Your task to perform on an android device: turn on location history Image 0: 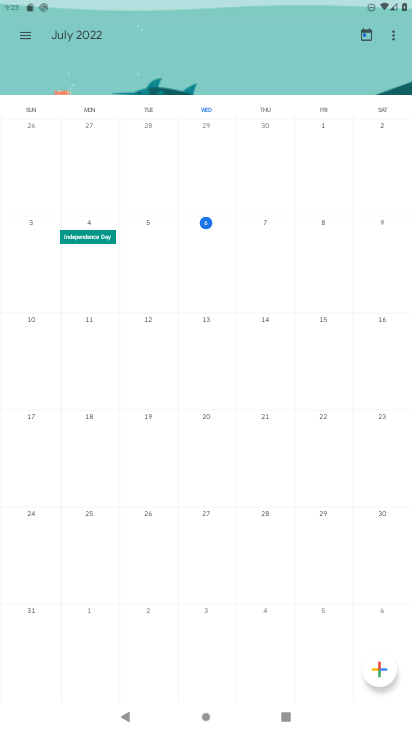
Step 0: press home button
Your task to perform on an android device: turn on location history Image 1: 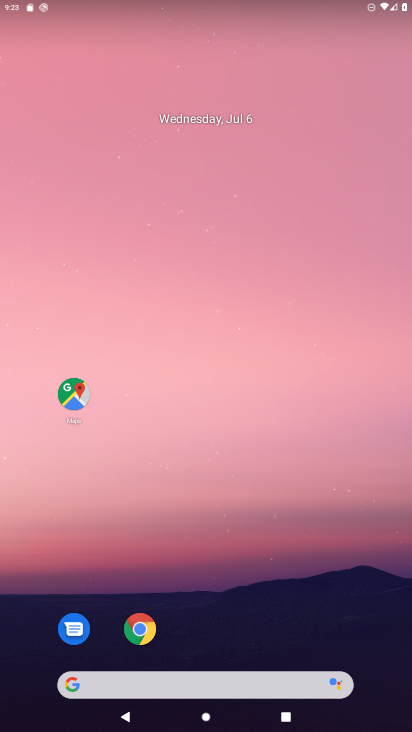
Step 1: drag from (178, 682) to (222, 42)
Your task to perform on an android device: turn on location history Image 2: 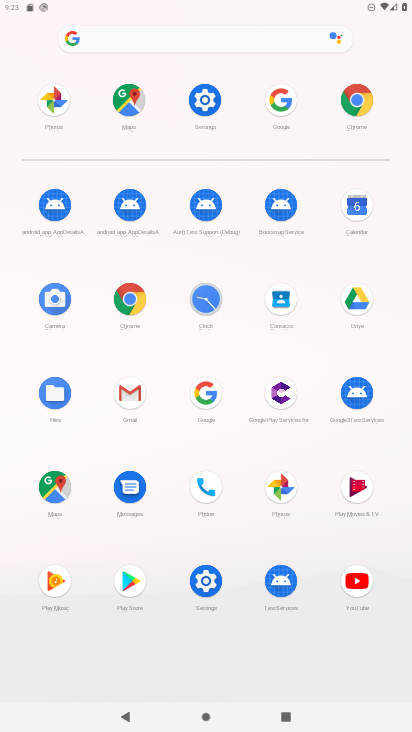
Step 2: click (201, 105)
Your task to perform on an android device: turn on location history Image 3: 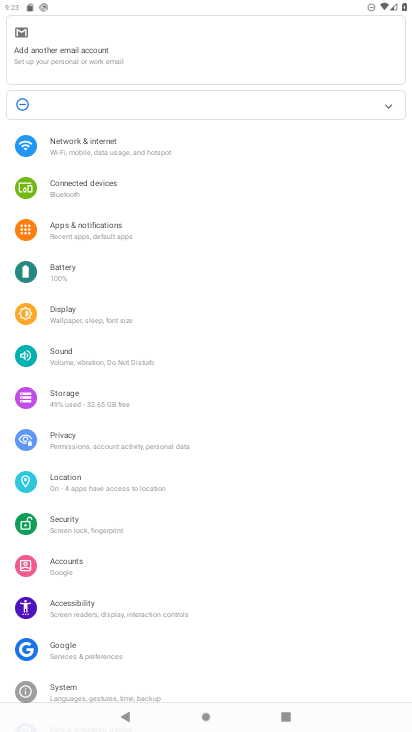
Step 3: click (103, 486)
Your task to perform on an android device: turn on location history Image 4: 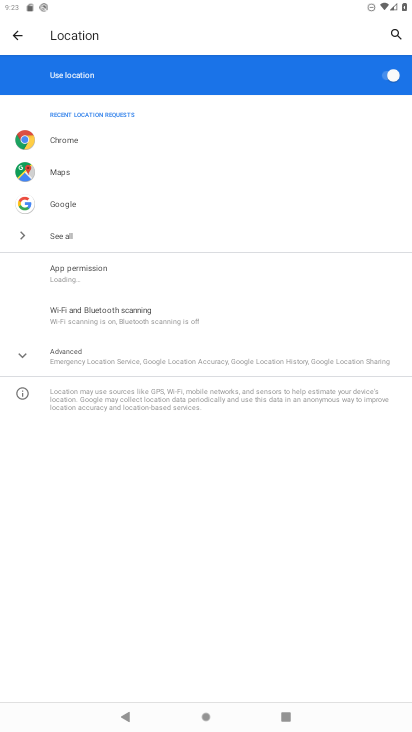
Step 4: click (123, 360)
Your task to perform on an android device: turn on location history Image 5: 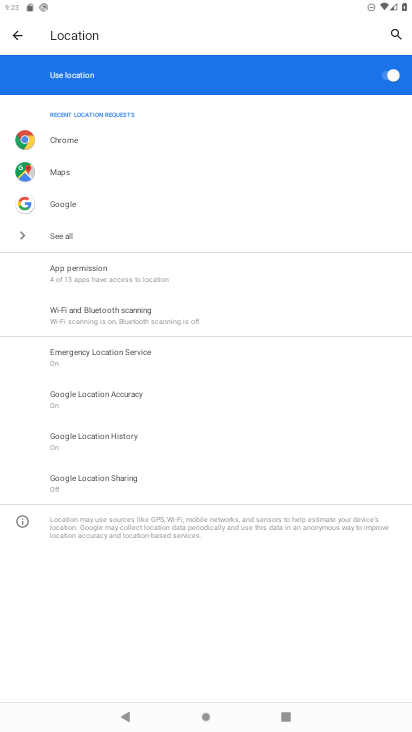
Step 5: click (63, 444)
Your task to perform on an android device: turn on location history Image 6: 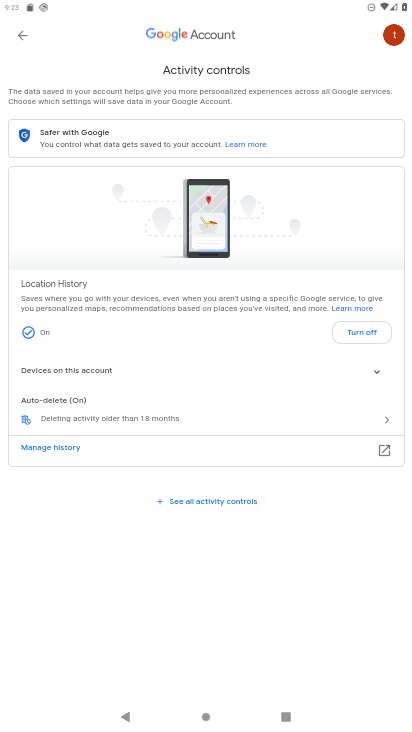
Step 6: task complete